Your task to perform on an android device: Open network settings Image 0: 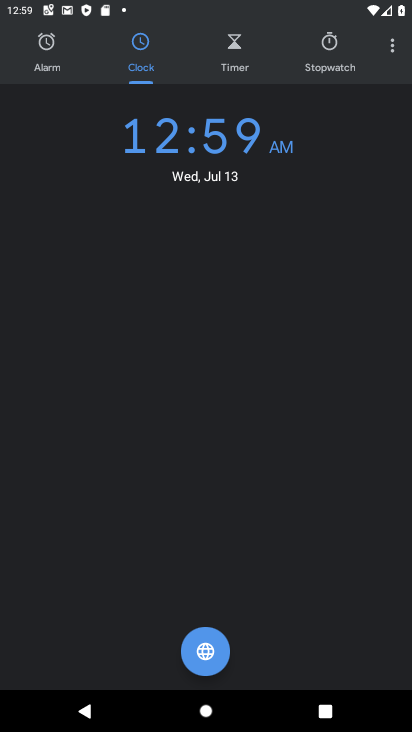
Step 0: press home button
Your task to perform on an android device: Open network settings Image 1: 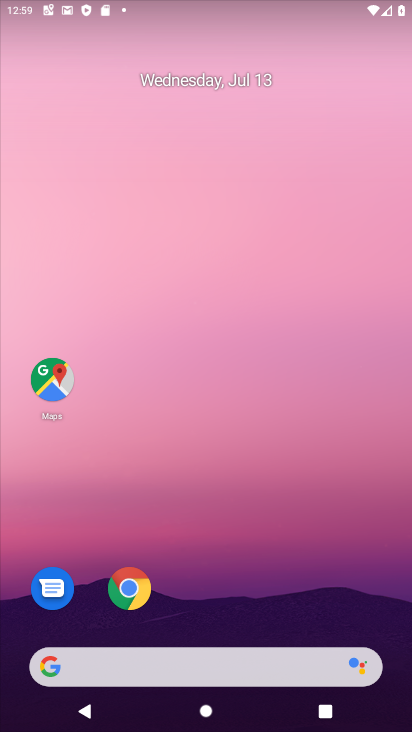
Step 1: drag from (236, 651) to (245, 241)
Your task to perform on an android device: Open network settings Image 2: 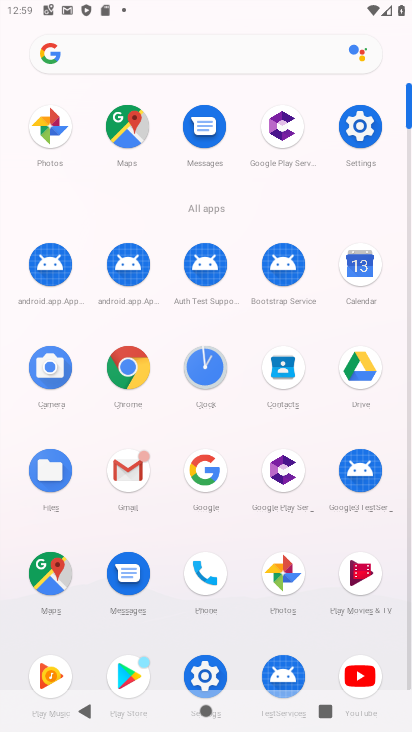
Step 2: click (352, 122)
Your task to perform on an android device: Open network settings Image 3: 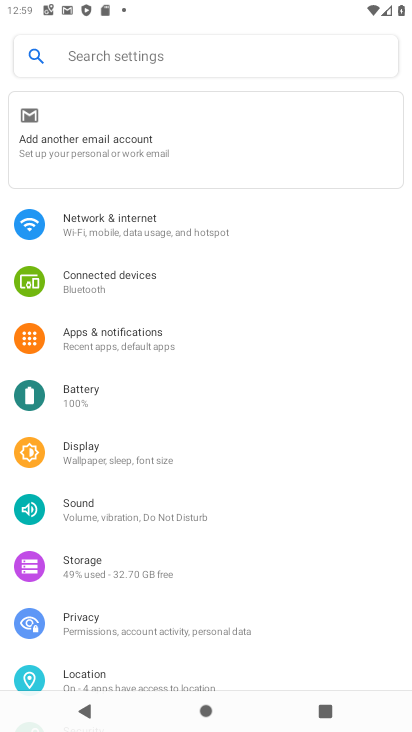
Step 3: click (159, 242)
Your task to perform on an android device: Open network settings Image 4: 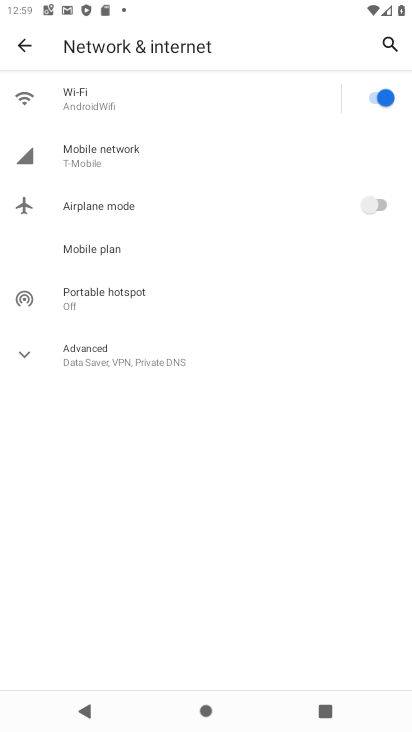
Step 4: click (128, 362)
Your task to perform on an android device: Open network settings Image 5: 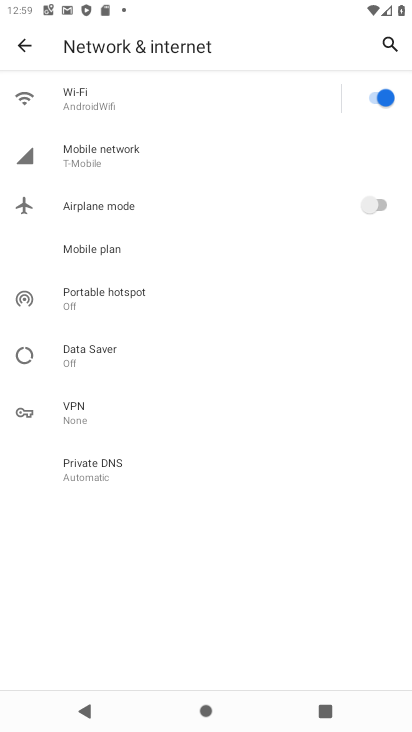
Step 5: task complete